Your task to perform on an android device: What's the weather going to be this weekend? Image 0: 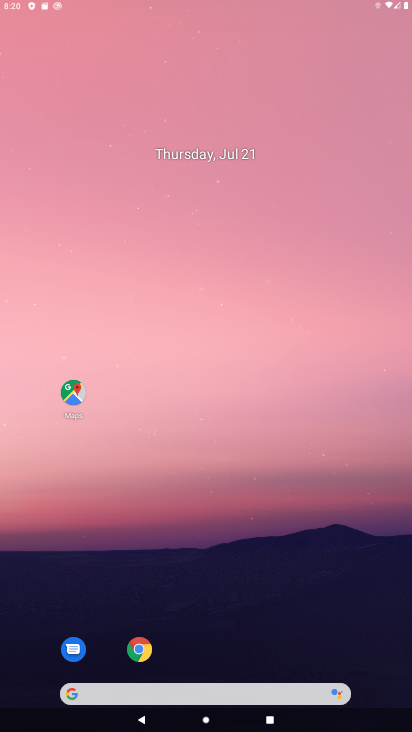
Step 0: press home button
Your task to perform on an android device: What's the weather going to be this weekend? Image 1: 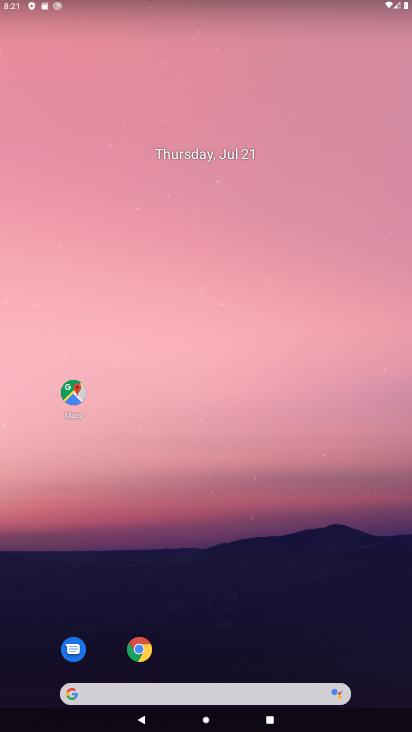
Step 1: drag from (200, 582) to (215, 105)
Your task to perform on an android device: What's the weather going to be this weekend? Image 2: 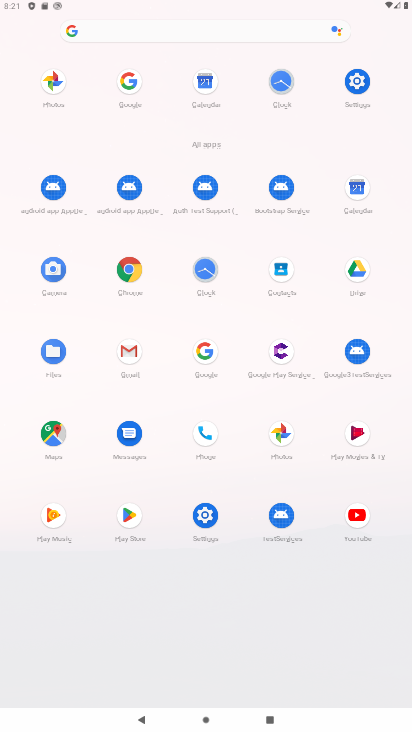
Step 2: click (128, 84)
Your task to perform on an android device: What's the weather going to be this weekend? Image 3: 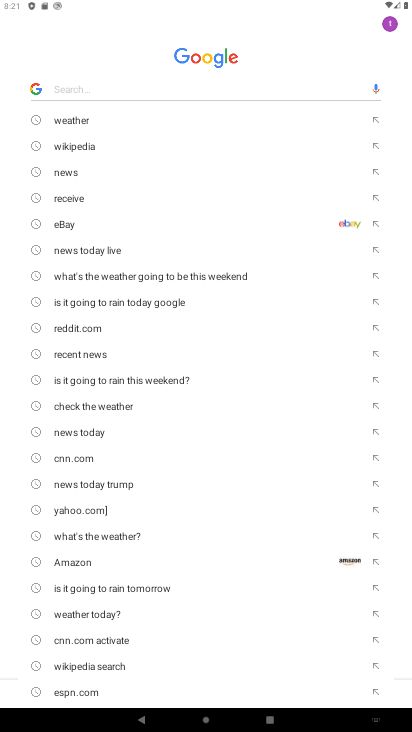
Step 3: click (219, 277)
Your task to perform on an android device: What's the weather going to be this weekend? Image 4: 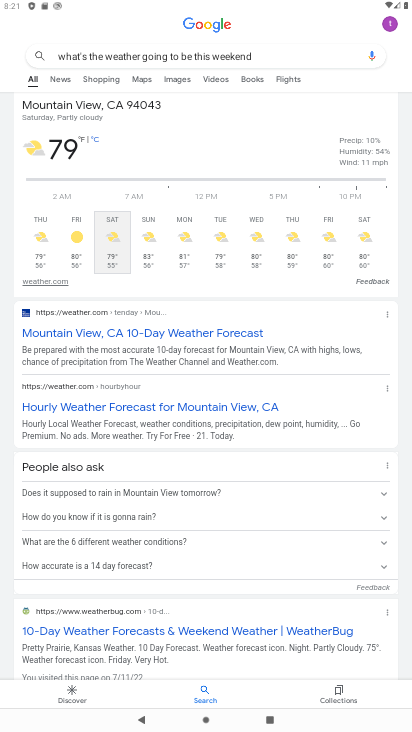
Step 4: task complete